Your task to perform on an android device: change the clock style Image 0: 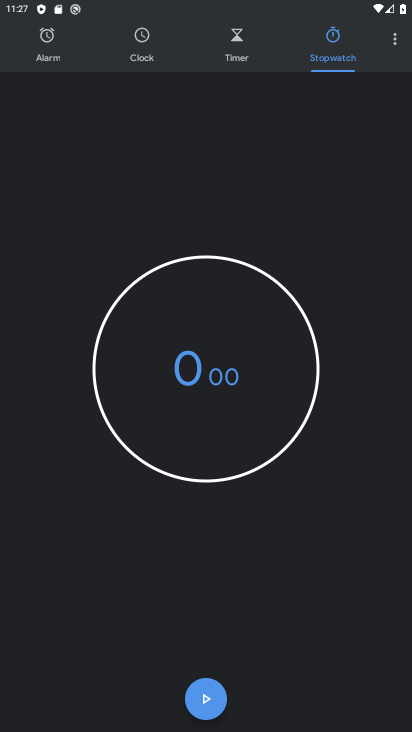
Step 0: click (398, 38)
Your task to perform on an android device: change the clock style Image 1: 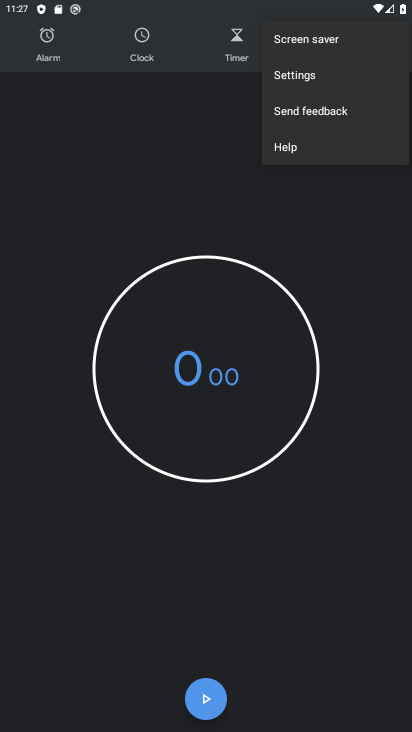
Step 1: click (286, 69)
Your task to perform on an android device: change the clock style Image 2: 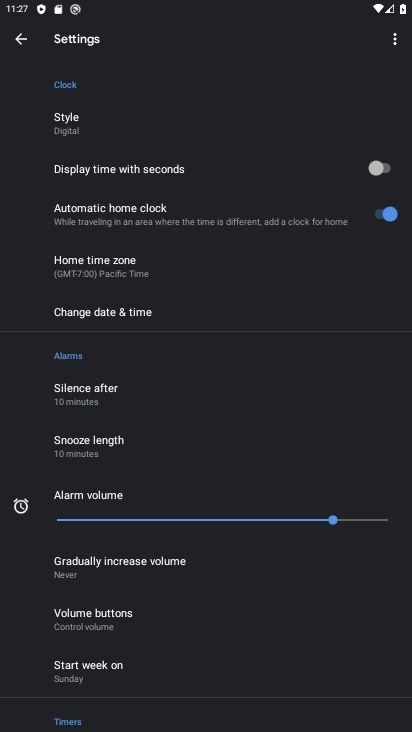
Step 2: click (67, 126)
Your task to perform on an android device: change the clock style Image 3: 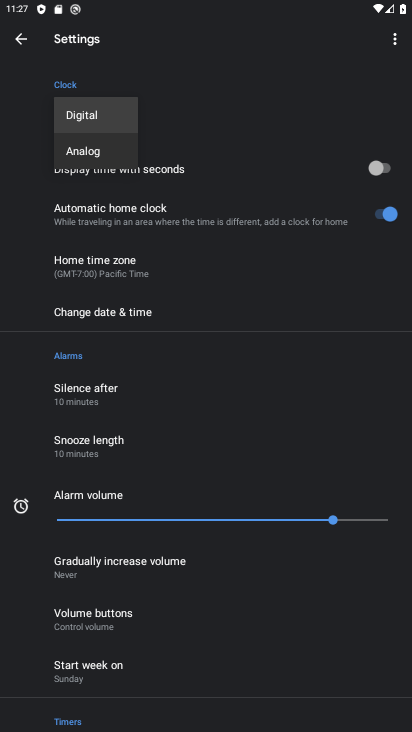
Step 3: click (73, 154)
Your task to perform on an android device: change the clock style Image 4: 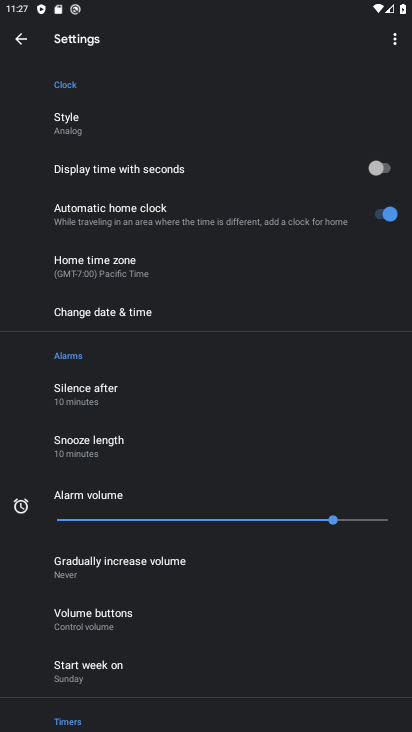
Step 4: task complete